Your task to perform on an android device: open a bookmark in the chrome app Image 0: 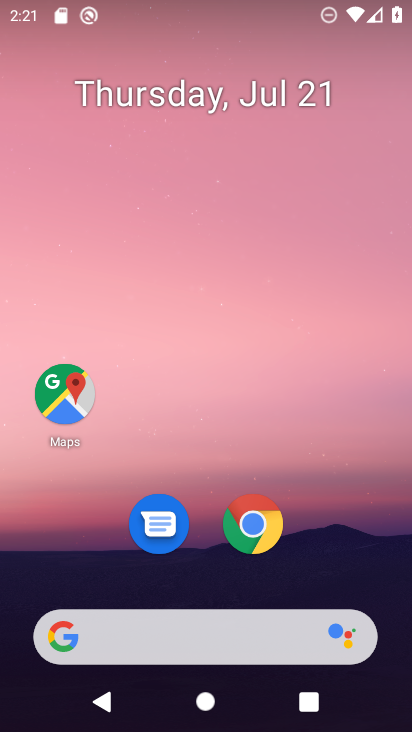
Step 0: click (245, 530)
Your task to perform on an android device: open a bookmark in the chrome app Image 1: 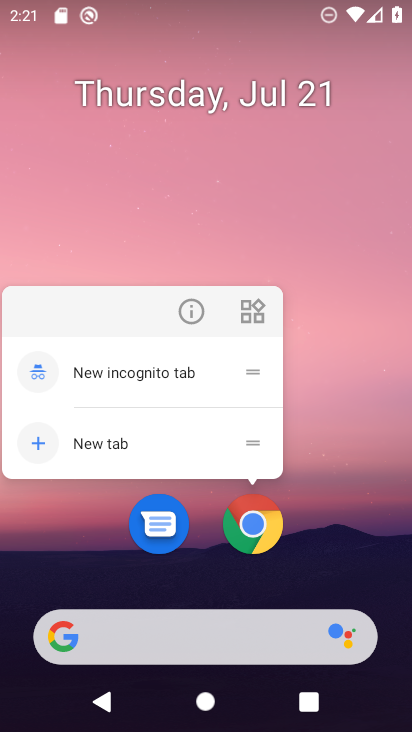
Step 1: click (246, 527)
Your task to perform on an android device: open a bookmark in the chrome app Image 2: 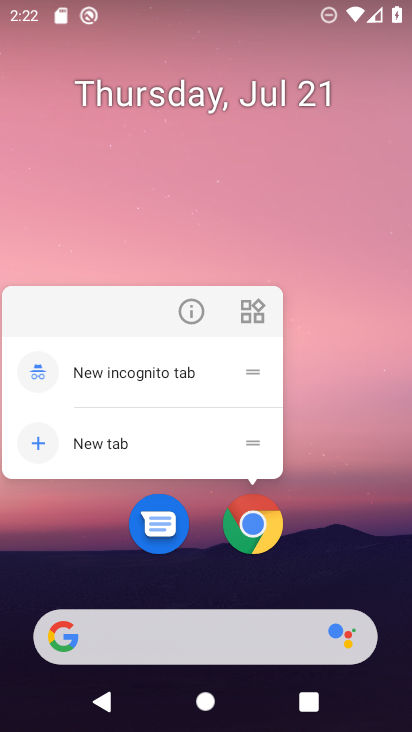
Step 2: click (246, 529)
Your task to perform on an android device: open a bookmark in the chrome app Image 3: 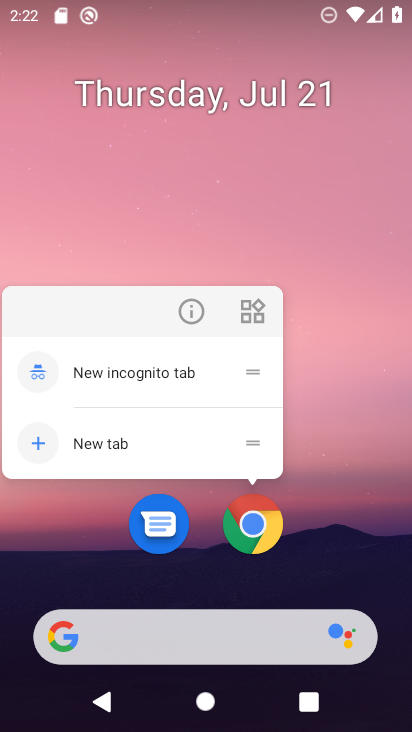
Step 3: click (256, 517)
Your task to perform on an android device: open a bookmark in the chrome app Image 4: 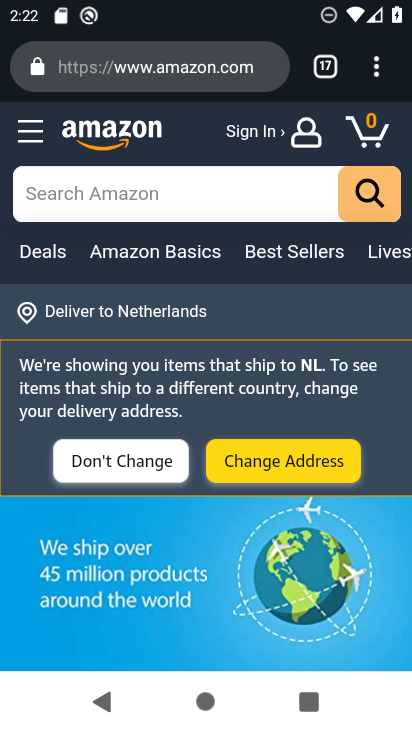
Step 4: task complete